Your task to perform on an android device: Go to location settings Image 0: 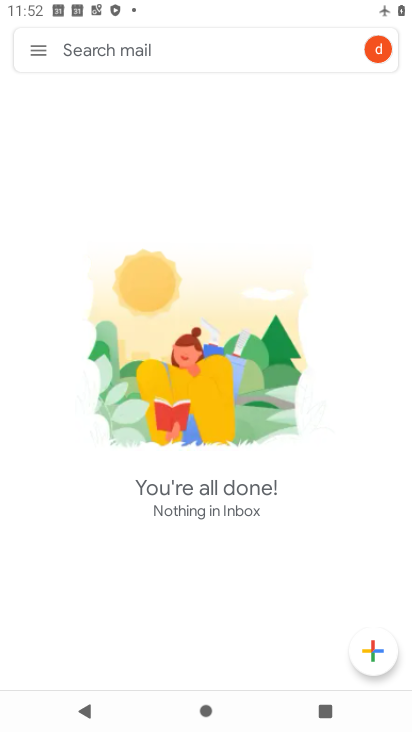
Step 0: press home button
Your task to perform on an android device: Go to location settings Image 1: 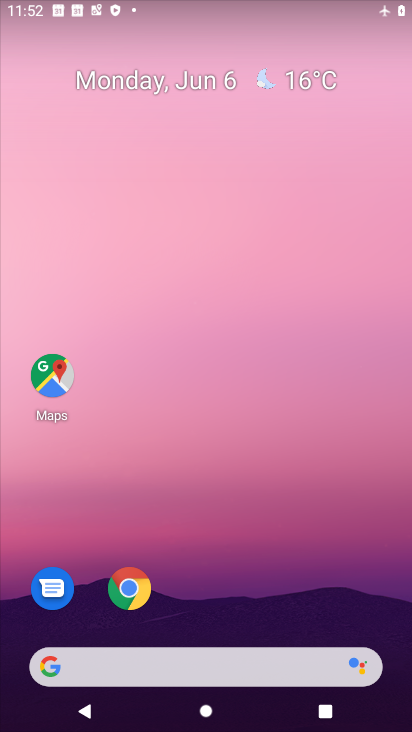
Step 1: drag from (220, 611) to (216, 272)
Your task to perform on an android device: Go to location settings Image 2: 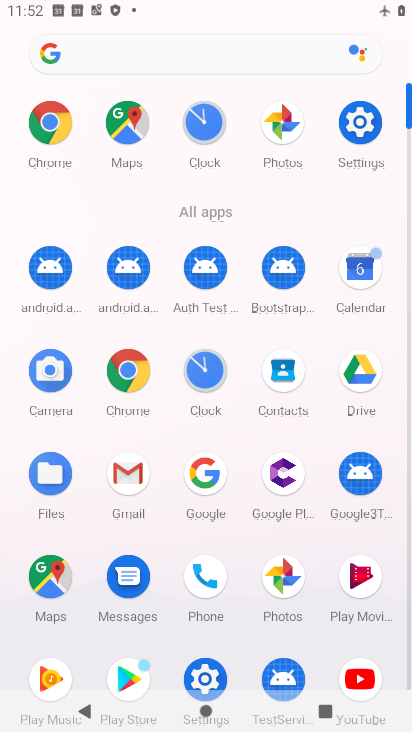
Step 2: click (351, 113)
Your task to perform on an android device: Go to location settings Image 3: 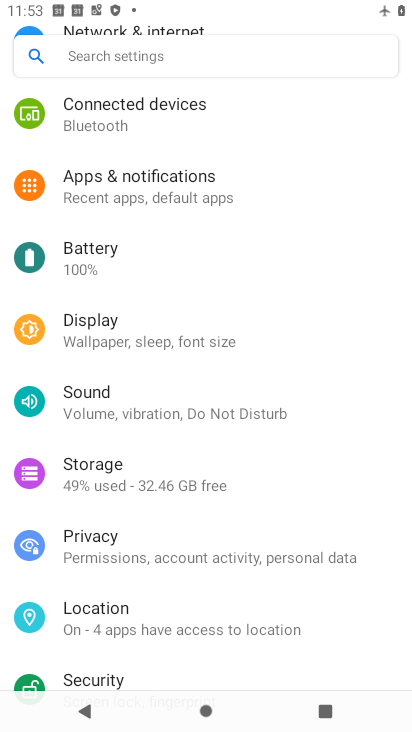
Step 3: click (75, 623)
Your task to perform on an android device: Go to location settings Image 4: 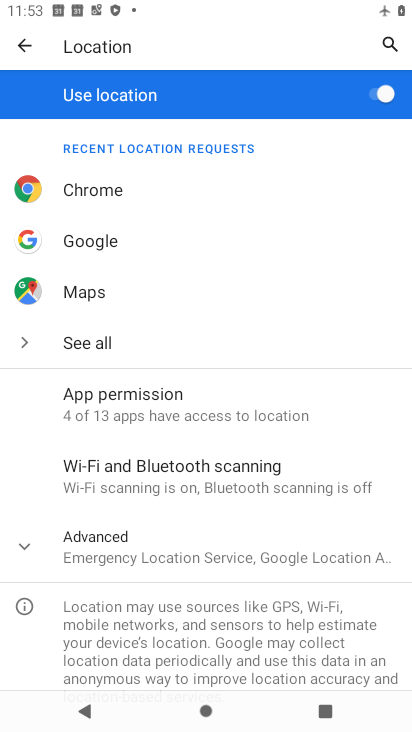
Step 4: task complete